Your task to perform on an android device: Open location settings Image 0: 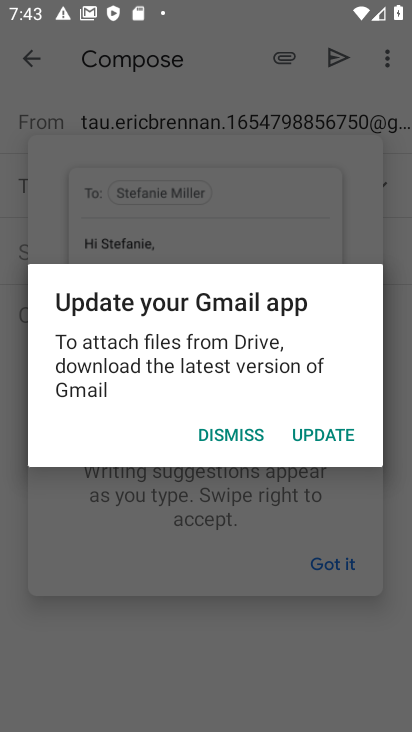
Step 0: click (216, 434)
Your task to perform on an android device: Open location settings Image 1: 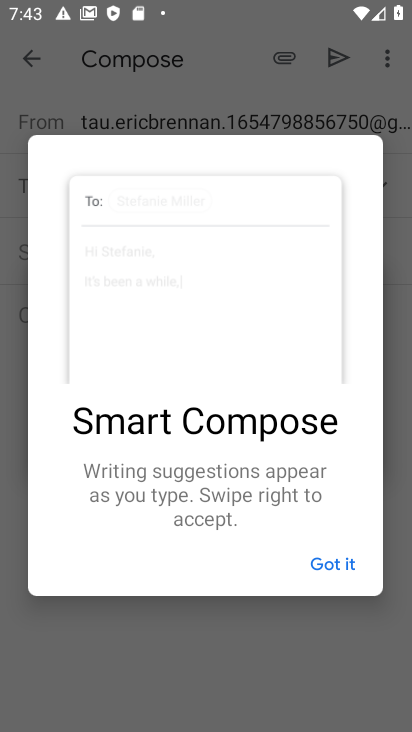
Step 1: press home button
Your task to perform on an android device: Open location settings Image 2: 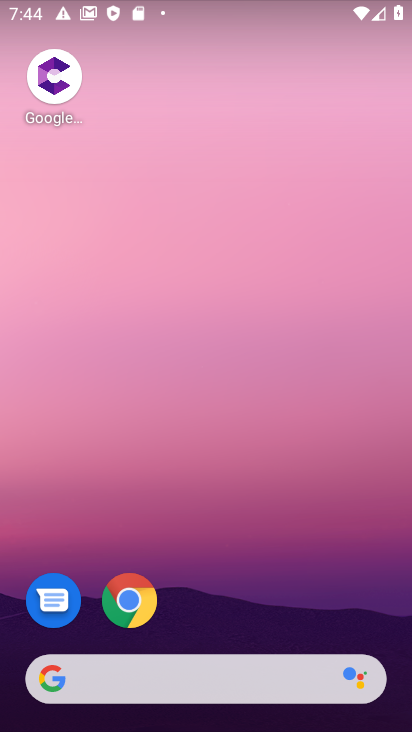
Step 2: drag from (150, 214) to (139, 97)
Your task to perform on an android device: Open location settings Image 3: 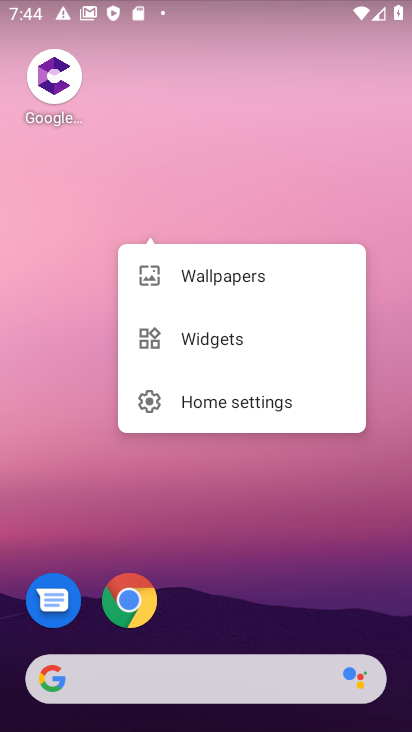
Step 3: click (198, 617)
Your task to perform on an android device: Open location settings Image 4: 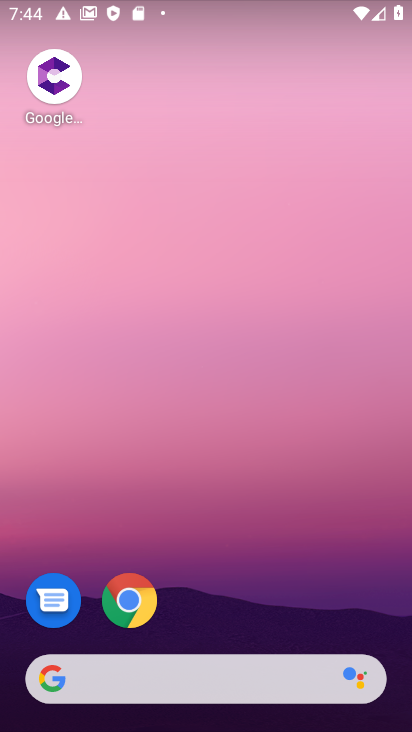
Step 4: drag from (195, 601) to (209, 21)
Your task to perform on an android device: Open location settings Image 5: 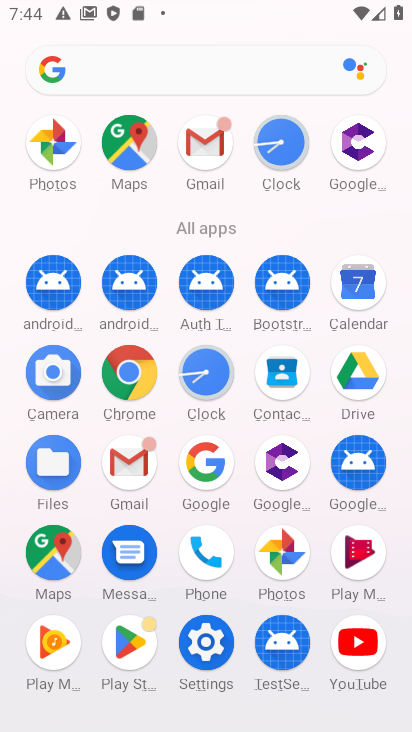
Step 5: click (192, 646)
Your task to perform on an android device: Open location settings Image 6: 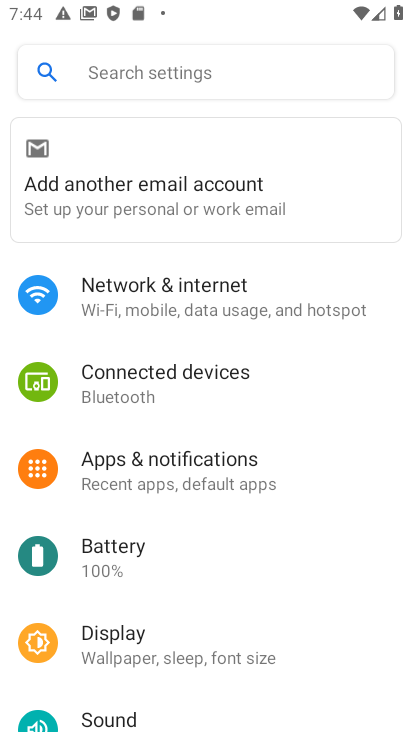
Step 6: click (245, 17)
Your task to perform on an android device: Open location settings Image 7: 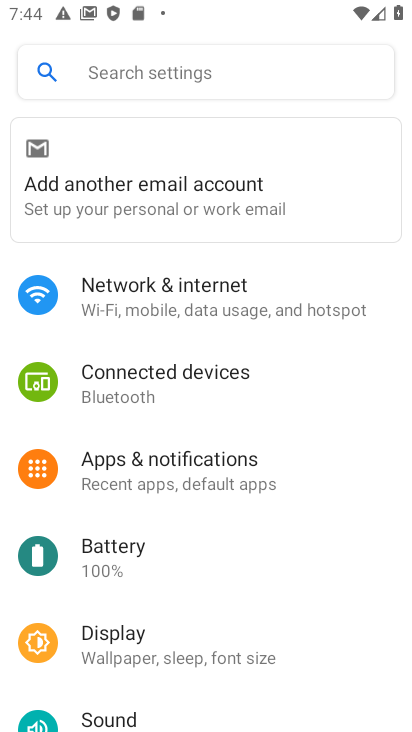
Step 7: drag from (207, 307) to (151, 25)
Your task to perform on an android device: Open location settings Image 8: 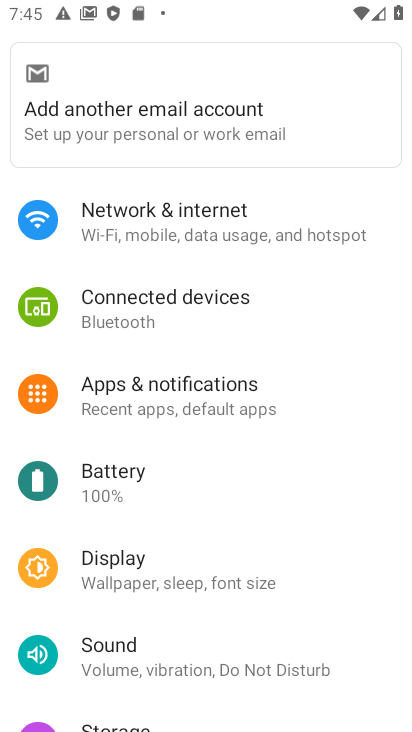
Step 8: drag from (285, 631) to (245, 303)
Your task to perform on an android device: Open location settings Image 9: 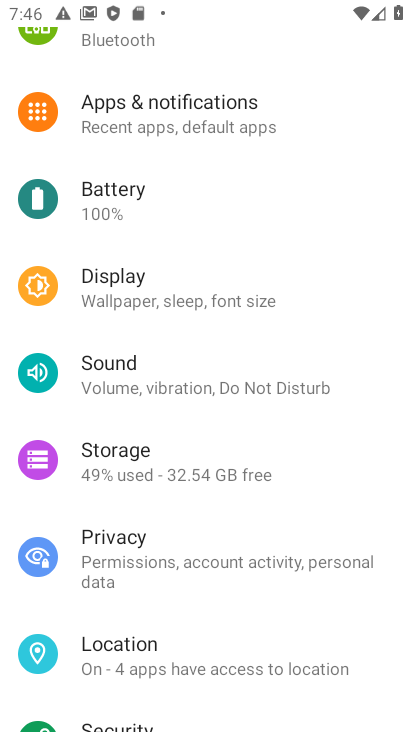
Step 9: click (111, 640)
Your task to perform on an android device: Open location settings Image 10: 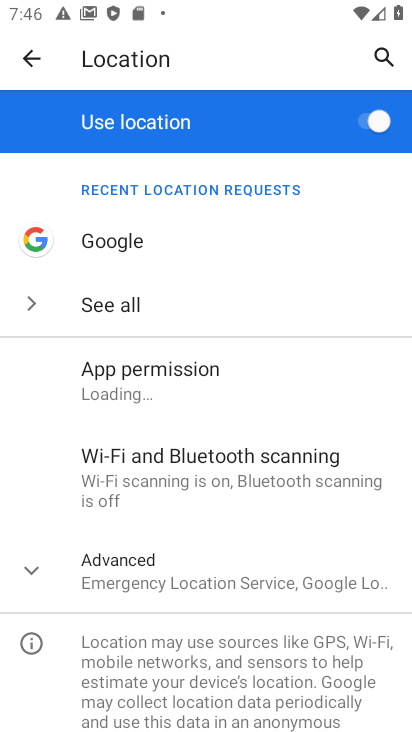
Step 10: task complete